Your task to perform on an android device: Go to notification settings Image 0: 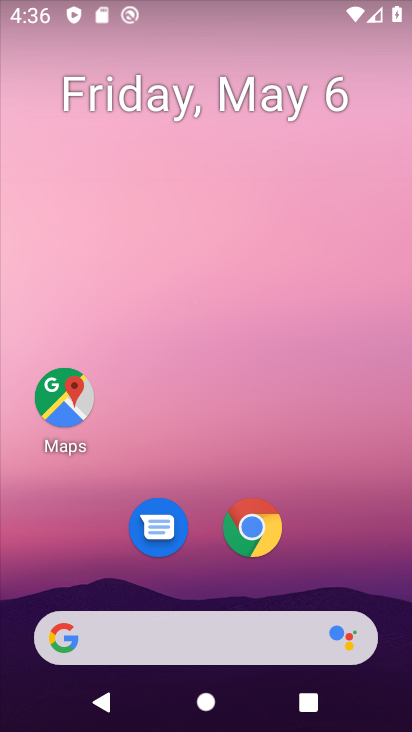
Step 0: drag from (246, 584) to (199, 14)
Your task to perform on an android device: Go to notification settings Image 1: 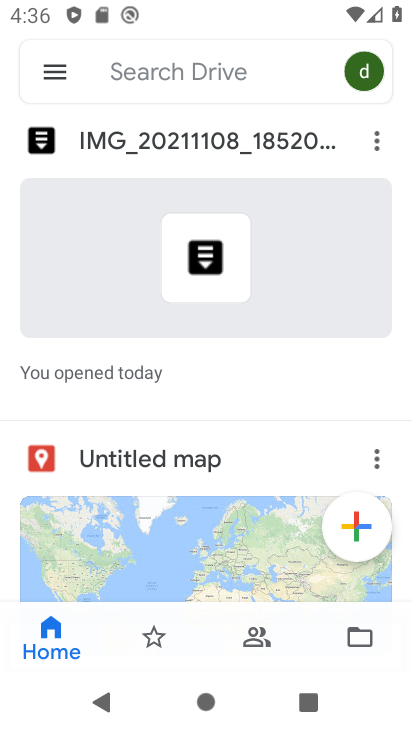
Step 1: press home button
Your task to perform on an android device: Go to notification settings Image 2: 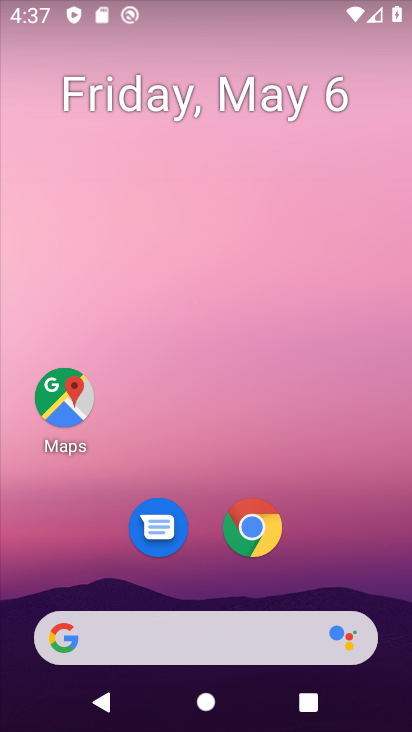
Step 2: drag from (225, 597) to (108, 17)
Your task to perform on an android device: Go to notification settings Image 3: 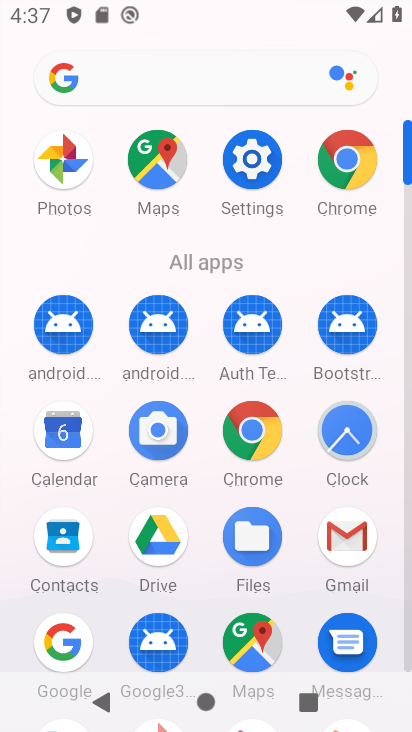
Step 3: click (244, 185)
Your task to perform on an android device: Go to notification settings Image 4: 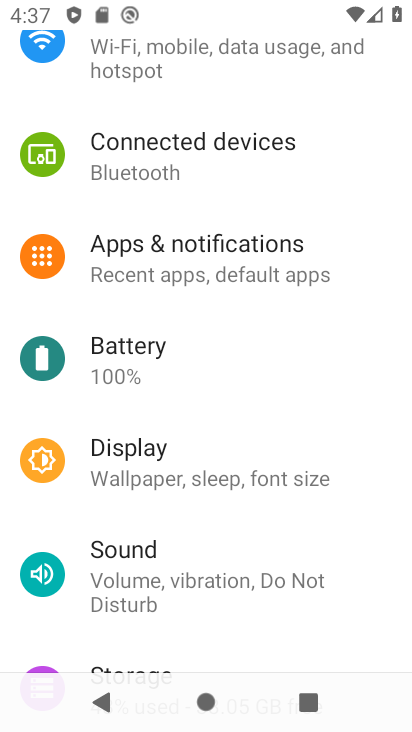
Step 4: click (189, 292)
Your task to perform on an android device: Go to notification settings Image 5: 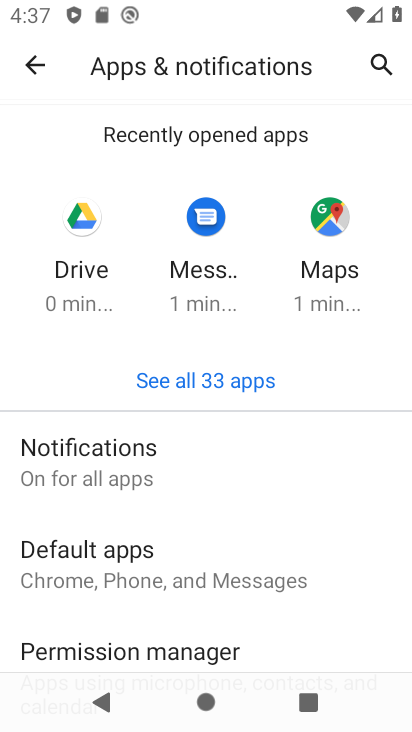
Step 5: click (119, 456)
Your task to perform on an android device: Go to notification settings Image 6: 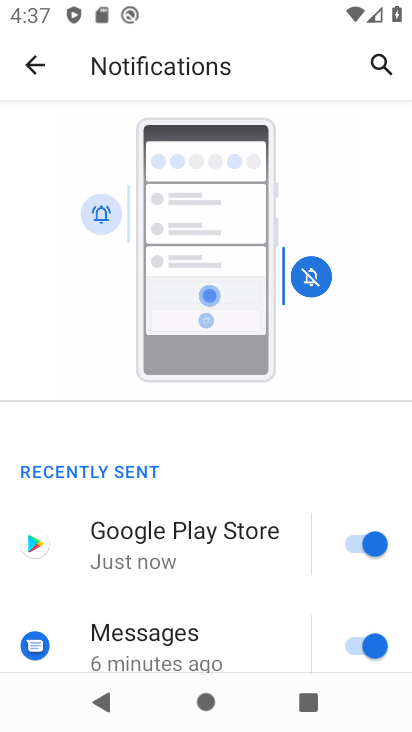
Step 6: drag from (204, 676) to (131, 22)
Your task to perform on an android device: Go to notification settings Image 7: 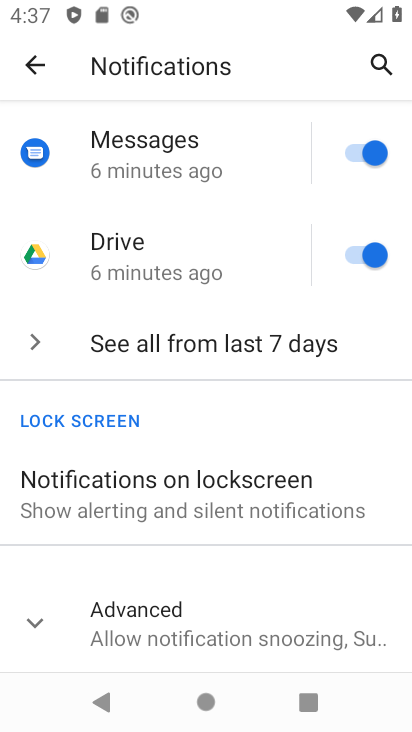
Step 7: click (196, 592)
Your task to perform on an android device: Go to notification settings Image 8: 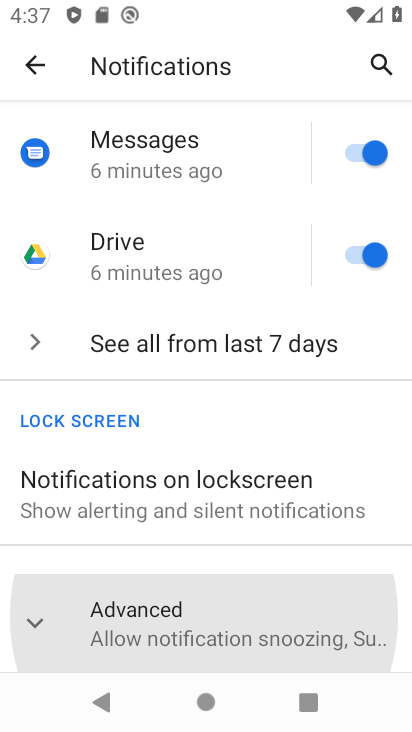
Step 8: task complete